Your task to perform on an android device: toggle show notifications on the lock screen Image 0: 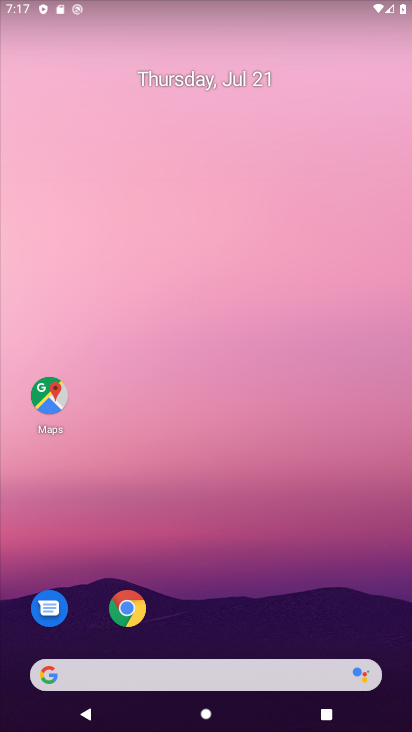
Step 0: drag from (186, 676) to (195, 303)
Your task to perform on an android device: toggle show notifications on the lock screen Image 1: 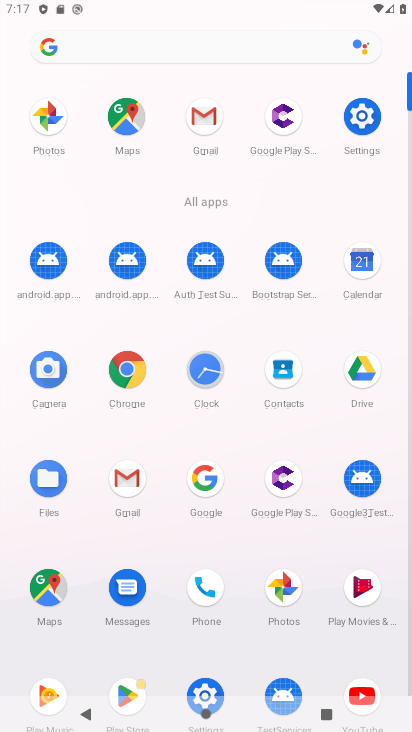
Step 1: click (361, 116)
Your task to perform on an android device: toggle show notifications on the lock screen Image 2: 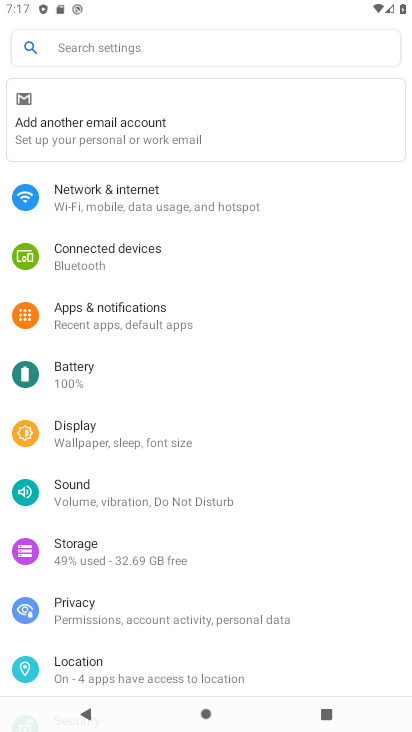
Step 2: click (112, 310)
Your task to perform on an android device: toggle show notifications on the lock screen Image 3: 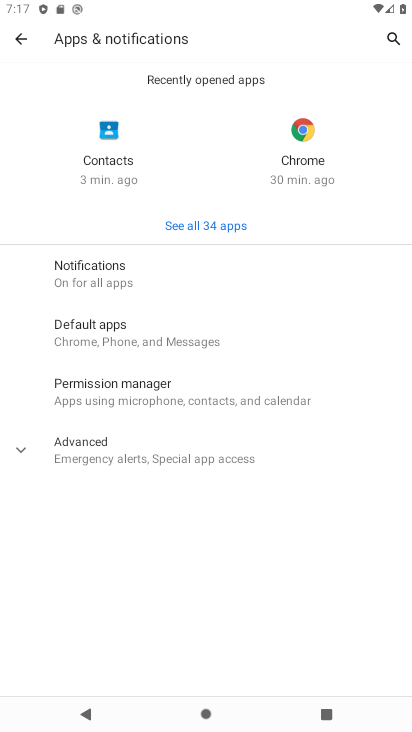
Step 3: click (94, 268)
Your task to perform on an android device: toggle show notifications on the lock screen Image 4: 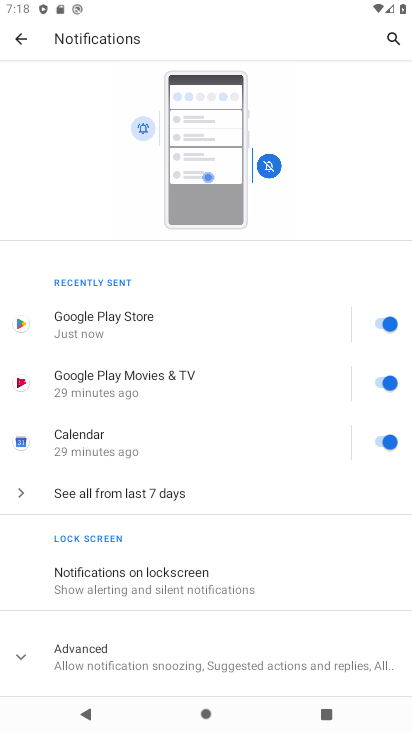
Step 4: click (122, 575)
Your task to perform on an android device: toggle show notifications on the lock screen Image 5: 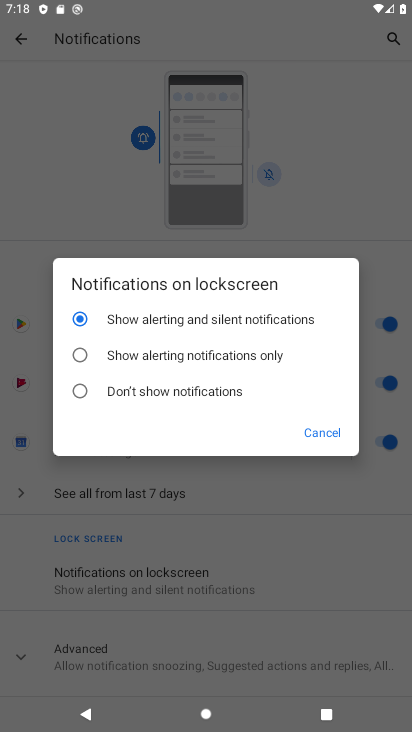
Step 5: click (80, 394)
Your task to perform on an android device: toggle show notifications on the lock screen Image 6: 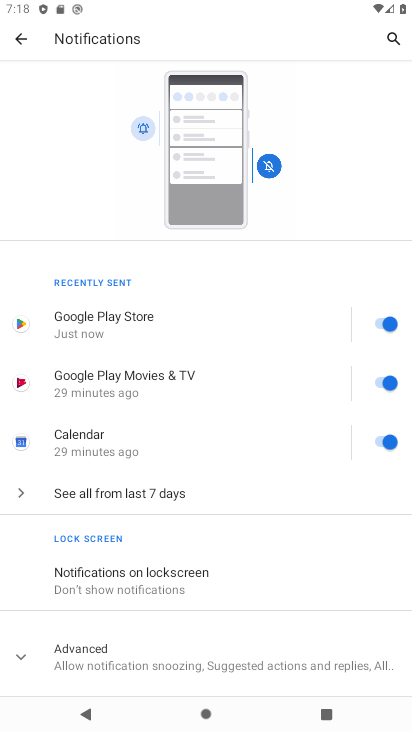
Step 6: task complete